Your task to perform on an android device: Check the weather Image 0: 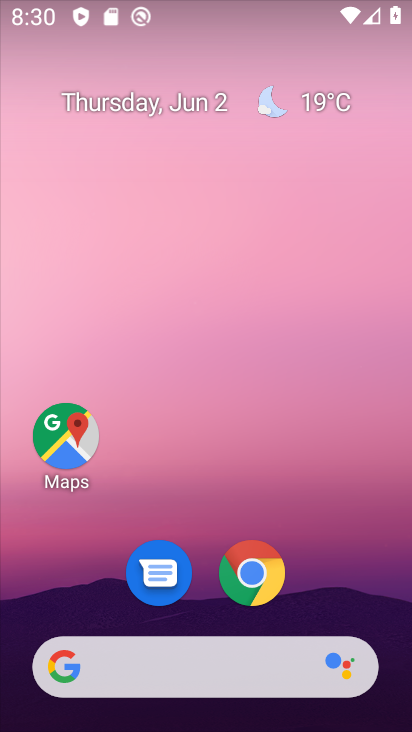
Step 0: click (302, 106)
Your task to perform on an android device: Check the weather Image 1: 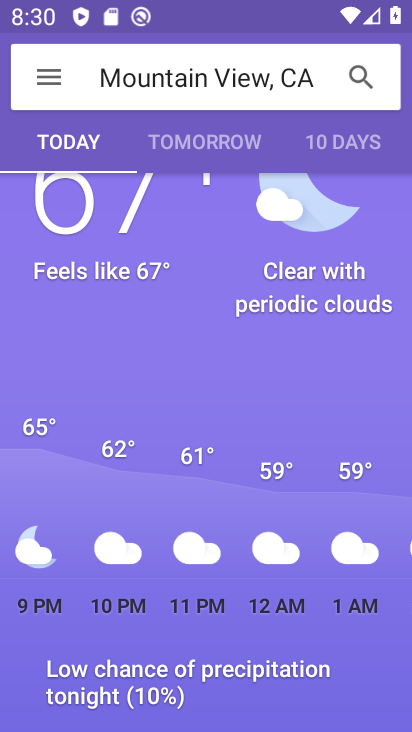
Step 1: task complete